Your task to perform on an android device: Open Chrome and go to settings Image 0: 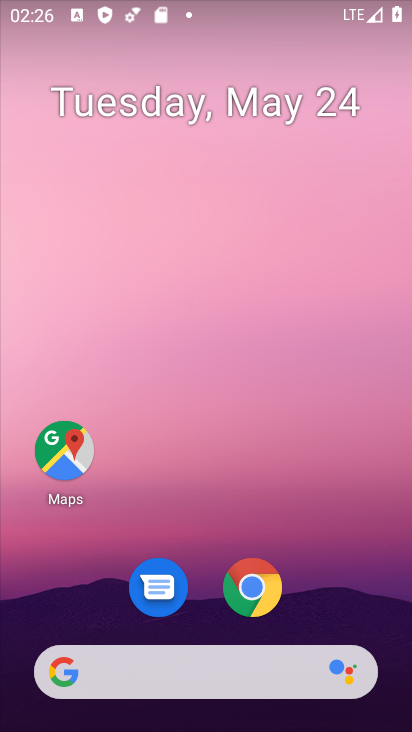
Step 0: drag from (147, 707) to (188, 222)
Your task to perform on an android device: Open Chrome and go to settings Image 1: 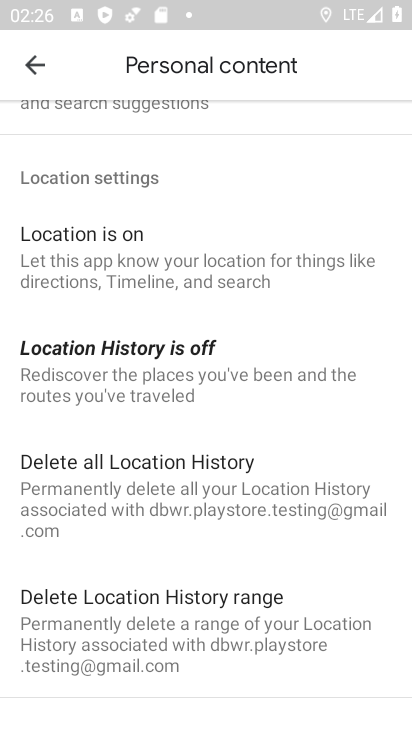
Step 1: click (32, 69)
Your task to perform on an android device: Open Chrome and go to settings Image 2: 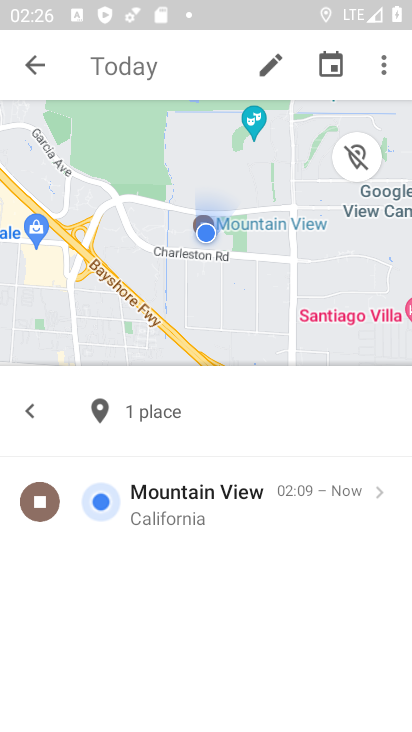
Step 2: press home button
Your task to perform on an android device: Open Chrome and go to settings Image 3: 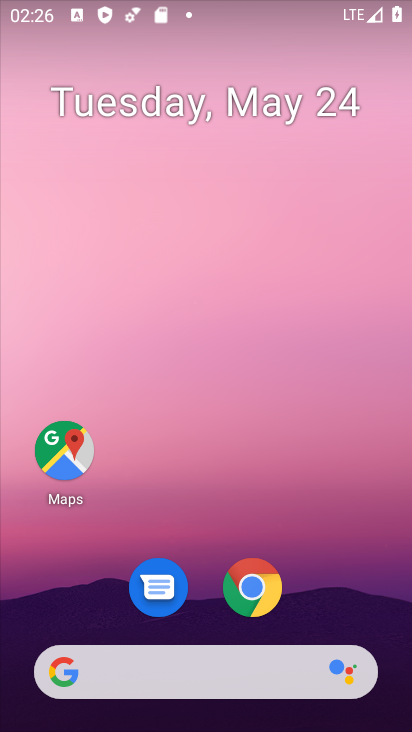
Step 3: click (263, 580)
Your task to perform on an android device: Open Chrome and go to settings Image 4: 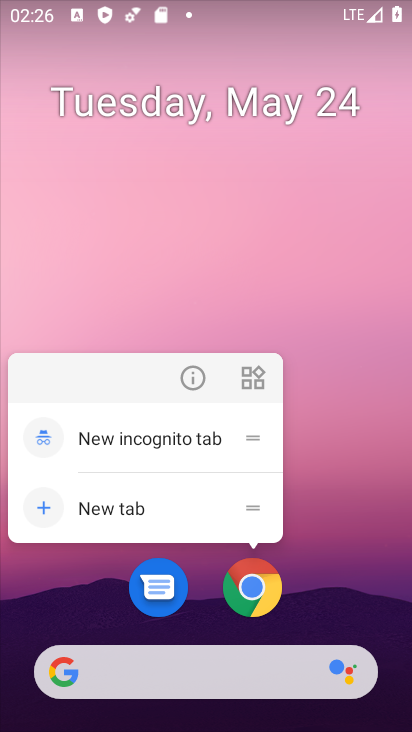
Step 4: click (248, 592)
Your task to perform on an android device: Open Chrome and go to settings Image 5: 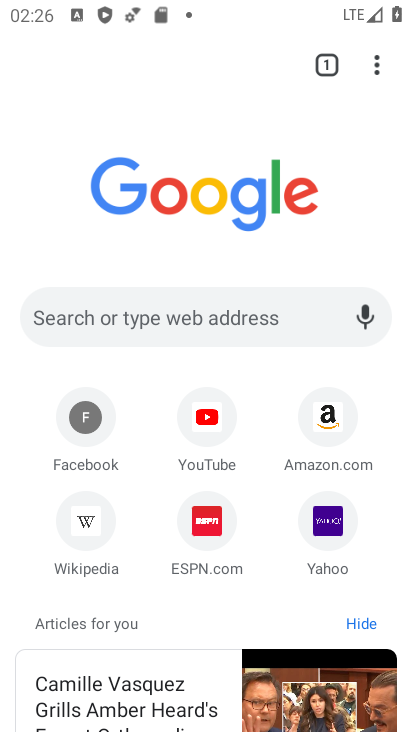
Step 5: click (373, 65)
Your task to perform on an android device: Open Chrome and go to settings Image 6: 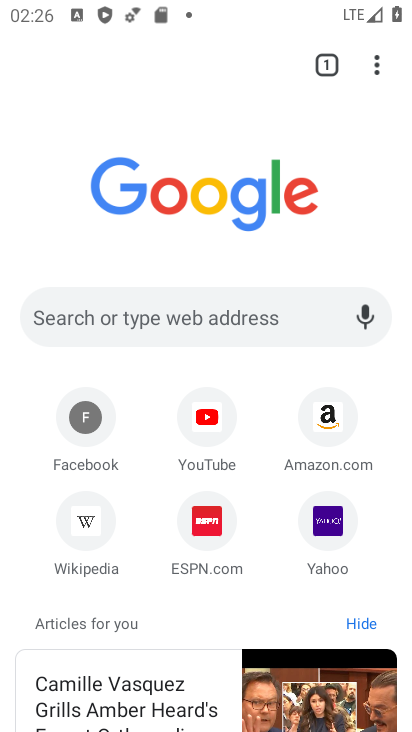
Step 6: click (373, 60)
Your task to perform on an android device: Open Chrome and go to settings Image 7: 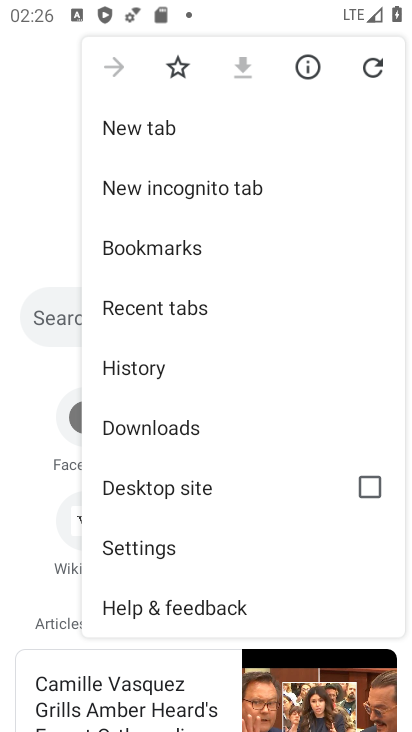
Step 7: click (180, 549)
Your task to perform on an android device: Open Chrome and go to settings Image 8: 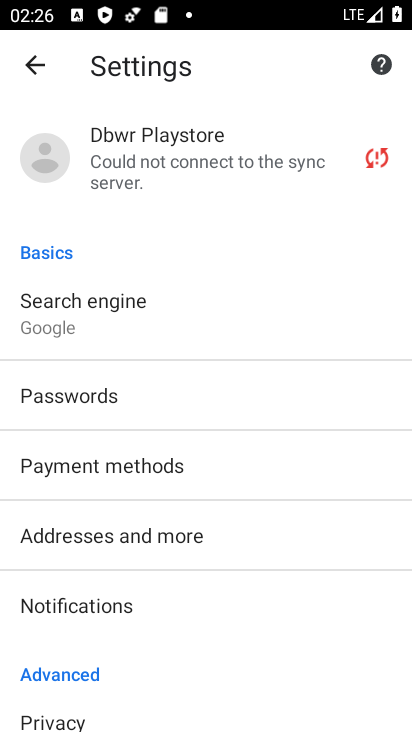
Step 8: task complete